Your task to perform on an android device: turn on wifi Image 0: 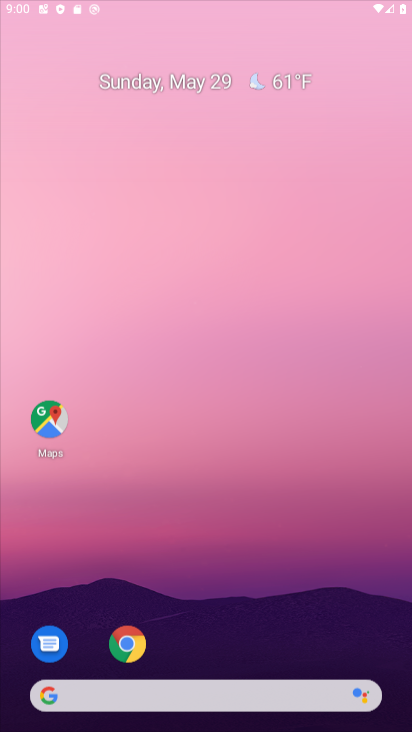
Step 0: drag from (214, 673) to (278, 334)
Your task to perform on an android device: turn on wifi Image 1: 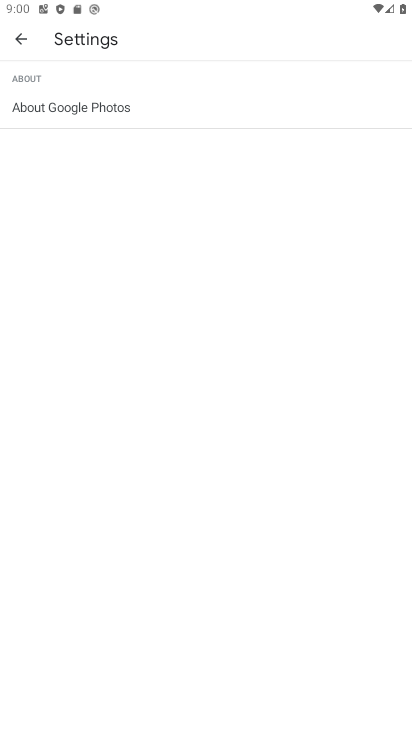
Step 1: press home button
Your task to perform on an android device: turn on wifi Image 2: 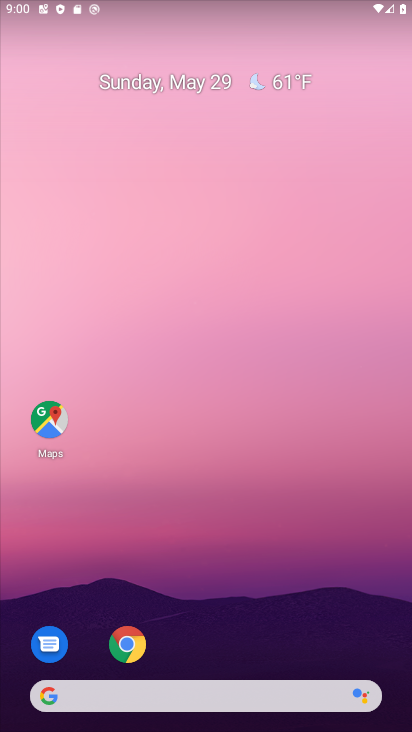
Step 2: drag from (194, 689) to (182, 338)
Your task to perform on an android device: turn on wifi Image 3: 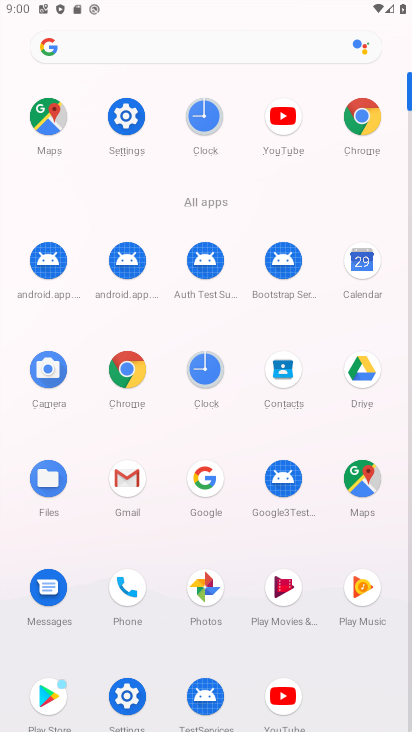
Step 3: click (135, 121)
Your task to perform on an android device: turn on wifi Image 4: 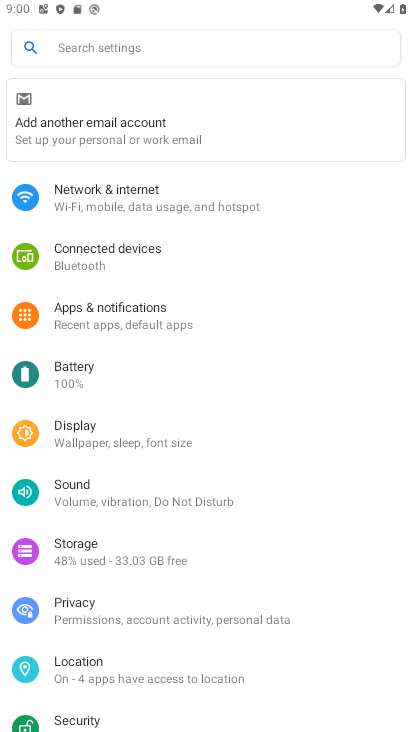
Step 4: click (119, 189)
Your task to perform on an android device: turn on wifi Image 5: 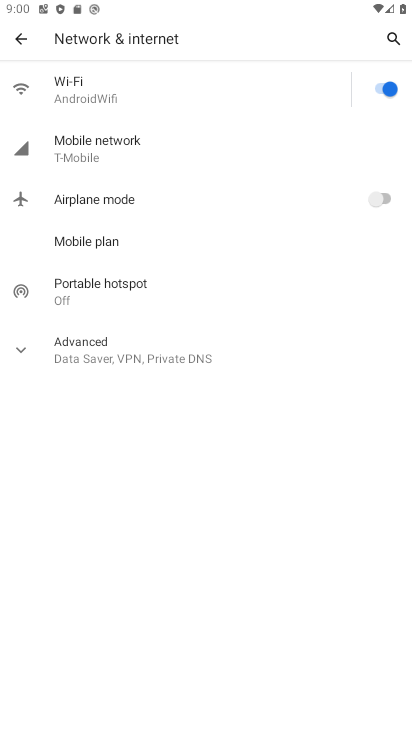
Step 5: task complete